Your task to perform on an android device: Open accessibility settings Image 0: 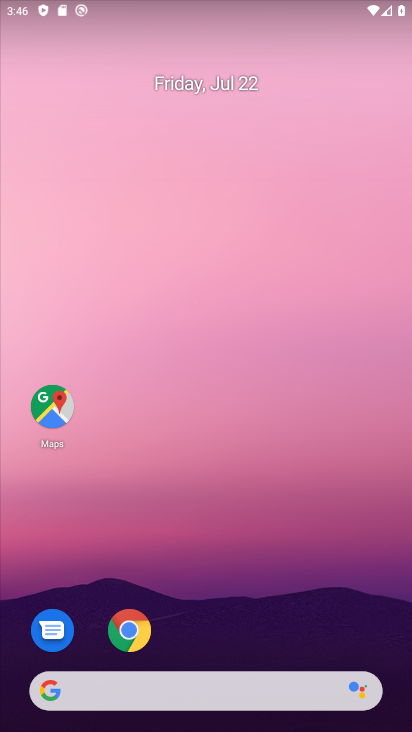
Step 0: drag from (215, 648) to (262, 6)
Your task to perform on an android device: Open accessibility settings Image 1: 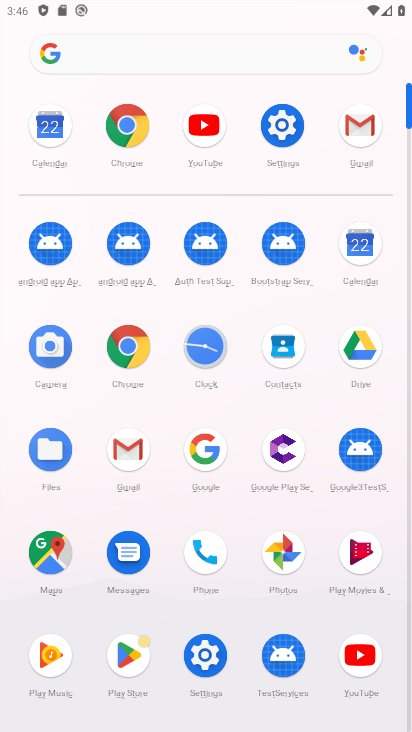
Step 1: click (205, 661)
Your task to perform on an android device: Open accessibility settings Image 2: 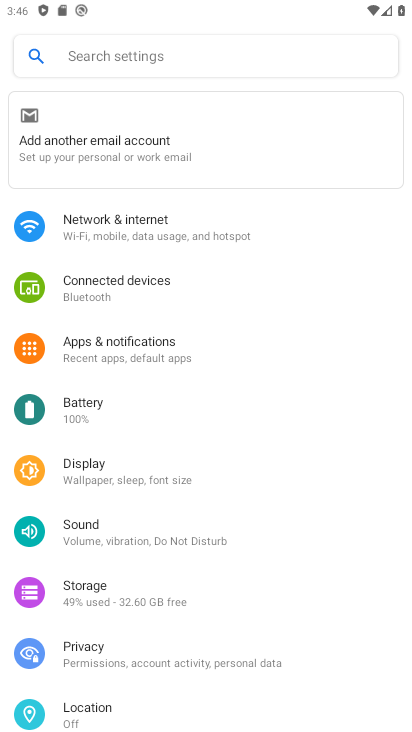
Step 2: drag from (184, 643) to (184, 229)
Your task to perform on an android device: Open accessibility settings Image 3: 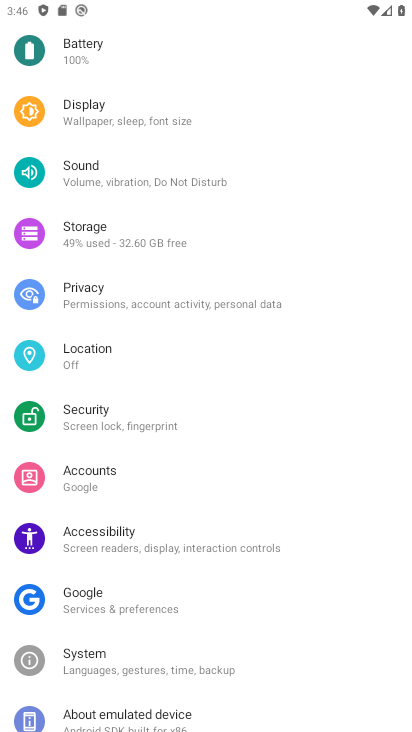
Step 3: click (108, 543)
Your task to perform on an android device: Open accessibility settings Image 4: 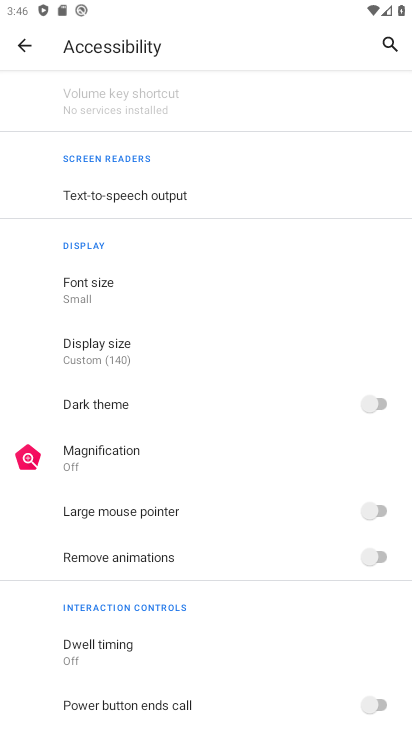
Step 4: task complete